Your task to perform on an android device: toggle priority inbox in the gmail app Image 0: 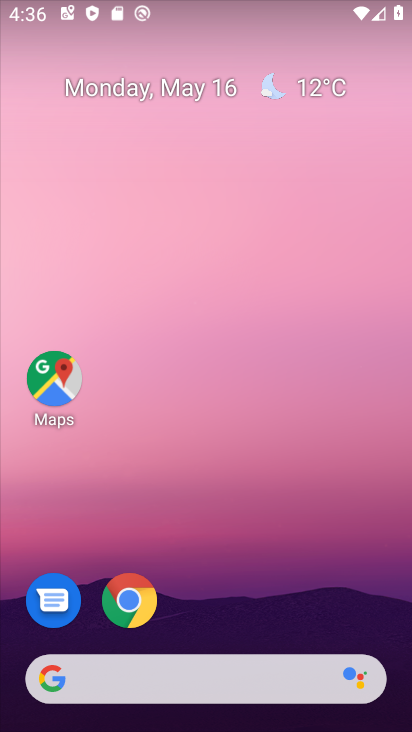
Step 0: drag from (196, 659) to (240, 179)
Your task to perform on an android device: toggle priority inbox in the gmail app Image 1: 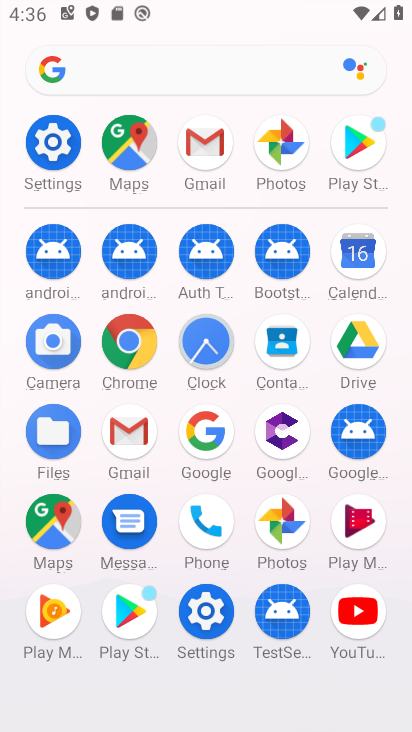
Step 1: click (214, 148)
Your task to perform on an android device: toggle priority inbox in the gmail app Image 2: 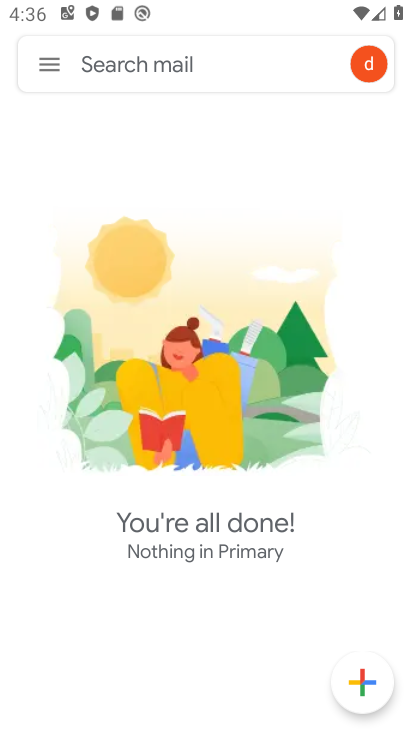
Step 2: click (59, 65)
Your task to perform on an android device: toggle priority inbox in the gmail app Image 3: 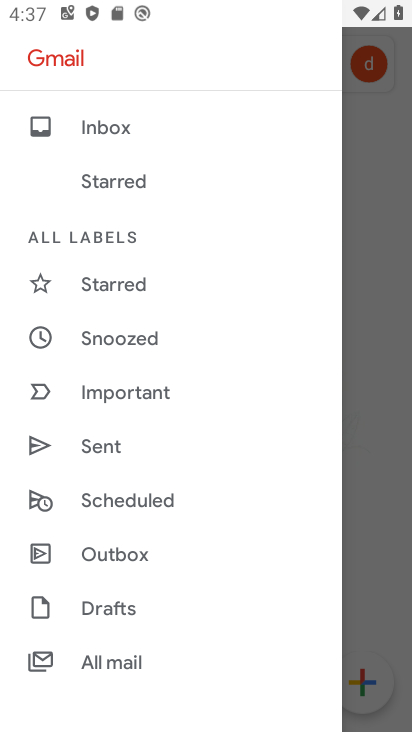
Step 3: drag from (134, 689) to (152, 177)
Your task to perform on an android device: toggle priority inbox in the gmail app Image 4: 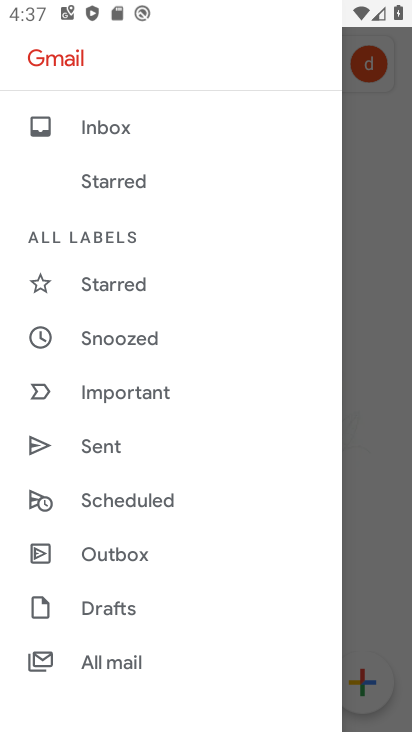
Step 4: drag from (92, 663) to (139, 243)
Your task to perform on an android device: toggle priority inbox in the gmail app Image 5: 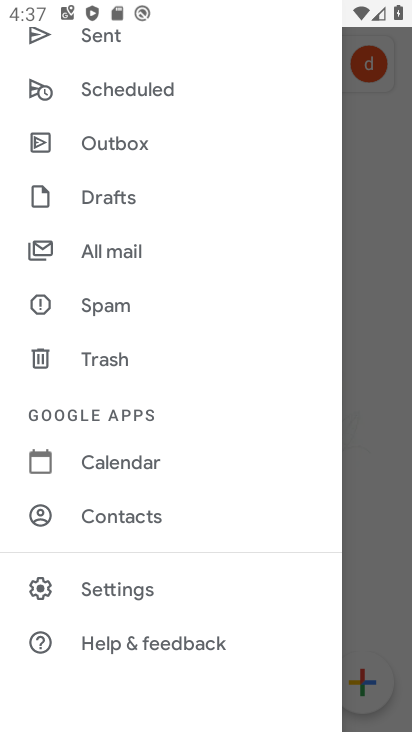
Step 5: click (107, 584)
Your task to perform on an android device: toggle priority inbox in the gmail app Image 6: 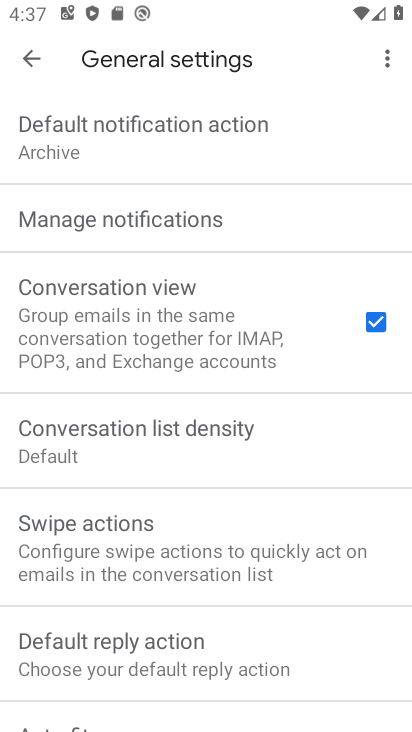
Step 6: click (18, 61)
Your task to perform on an android device: toggle priority inbox in the gmail app Image 7: 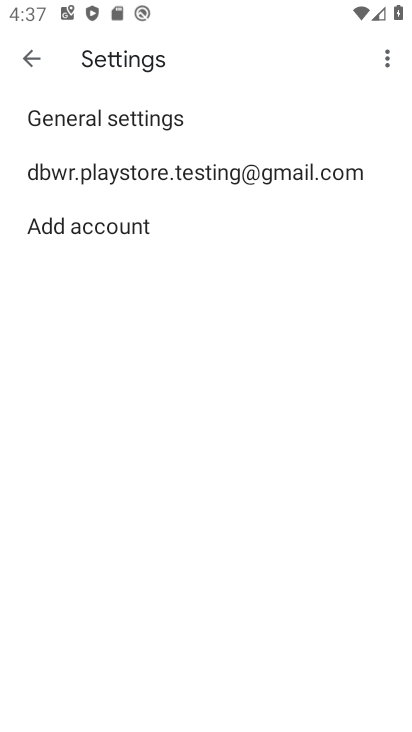
Step 7: click (122, 171)
Your task to perform on an android device: toggle priority inbox in the gmail app Image 8: 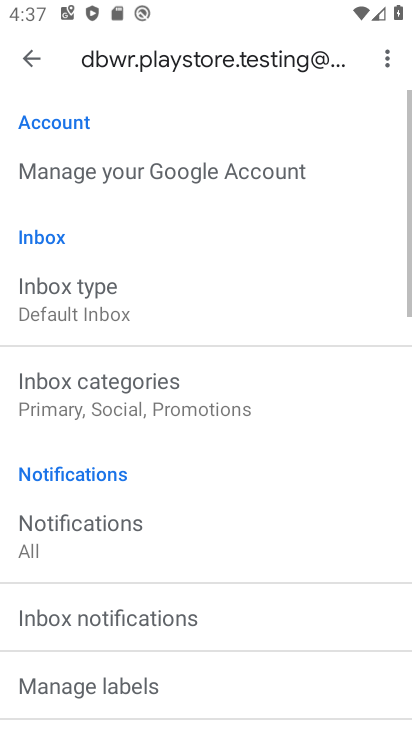
Step 8: click (76, 303)
Your task to perform on an android device: toggle priority inbox in the gmail app Image 9: 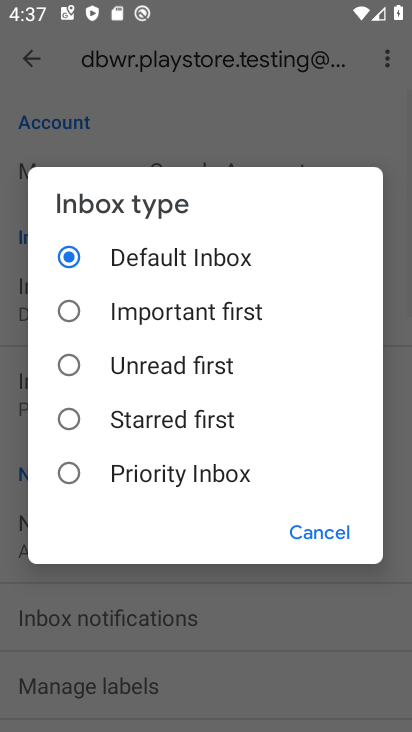
Step 9: click (155, 475)
Your task to perform on an android device: toggle priority inbox in the gmail app Image 10: 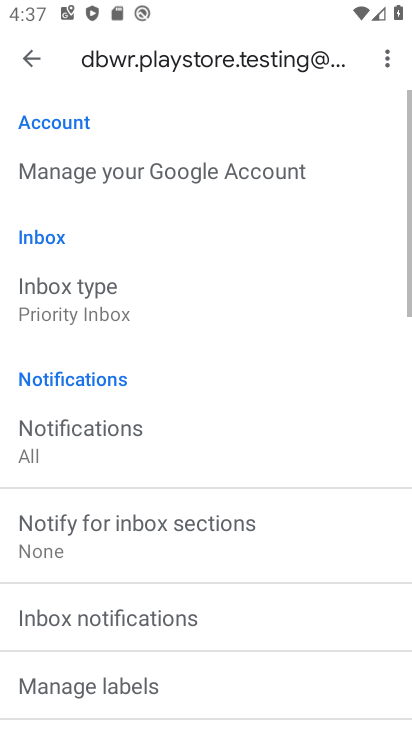
Step 10: task complete